Your task to perform on an android device: change your default location settings in chrome Image 0: 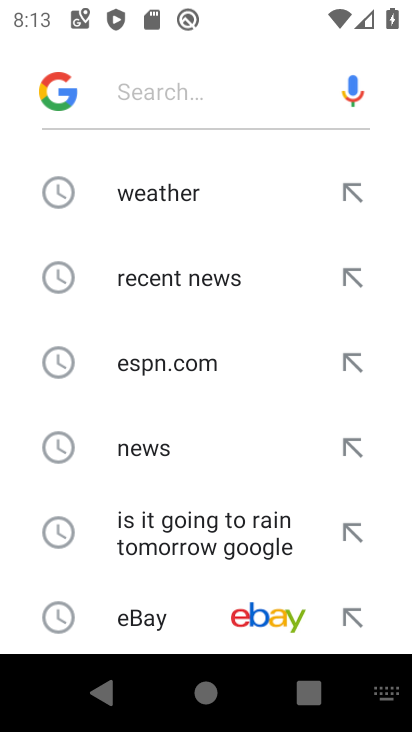
Step 0: press home button
Your task to perform on an android device: change your default location settings in chrome Image 1: 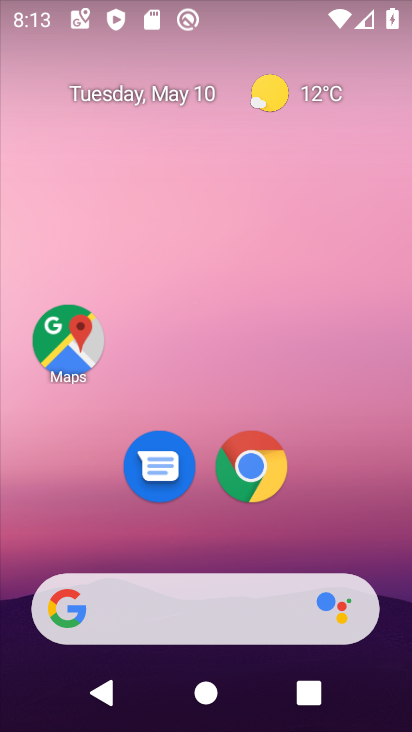
Step 1: click (257, 466)
Your task to perform on an android device: change your default location settings in chrome Image 2: 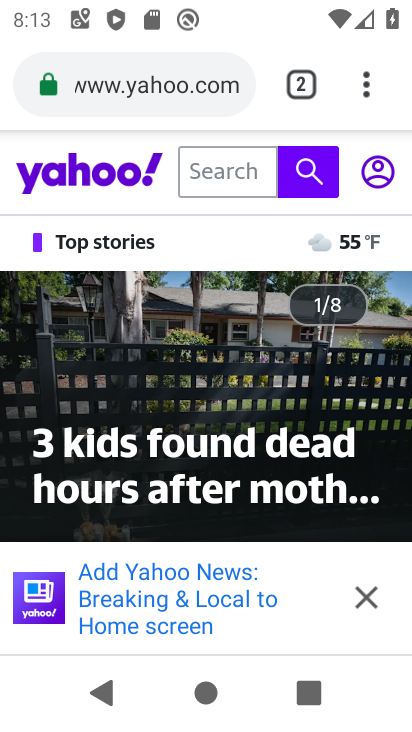
Step 2: click (361, 598)
Your task to perform on an android device: change your default location settings in chrome Image 3: 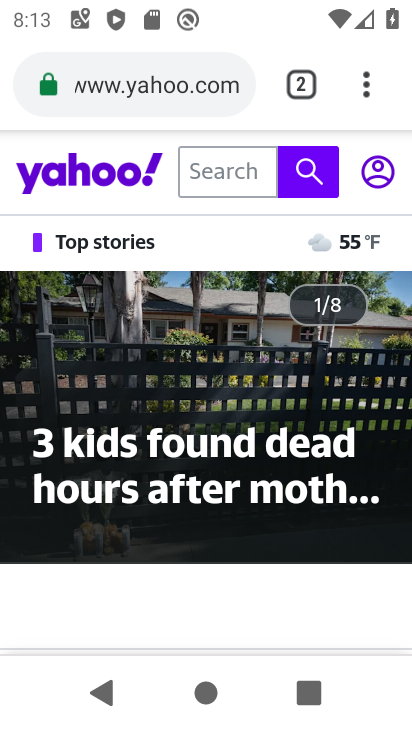
Step 3: click (369, 95)
Your task to perform on an android device: change your default location settings in chrome Image 4: 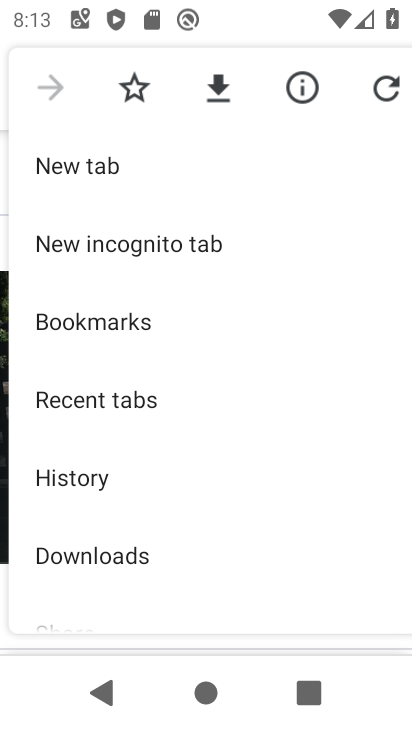
Step 4: drag from (153, 478) to (183, 197)
Your task to perform on an android device: change your default location settings in chrome Image 5: 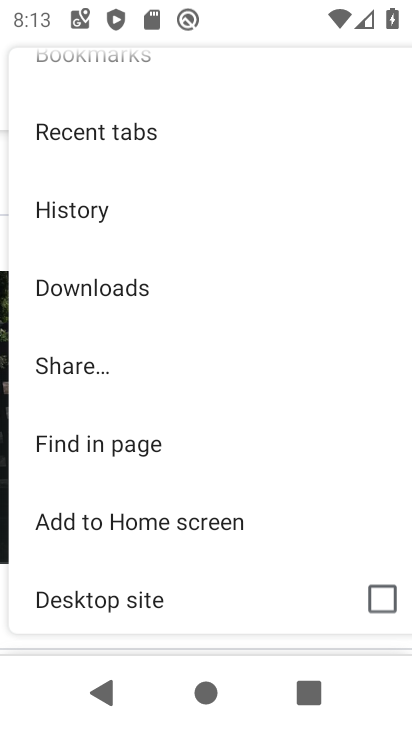
Step 5: drag from (109, 580) to (178, 233)
Your task to perform on an android device: change your default location settings in chrome Image 6: 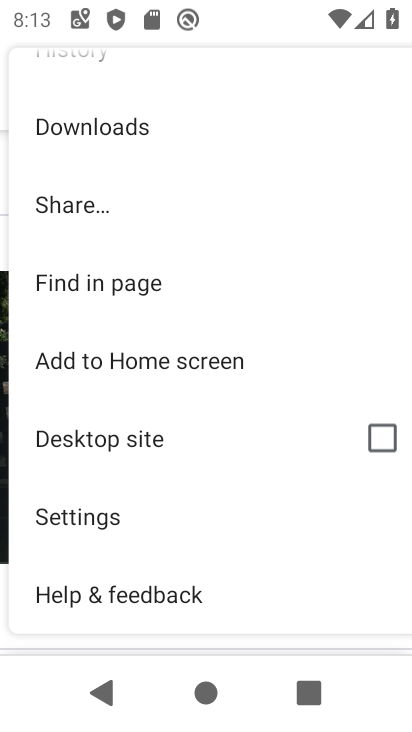
Step 6: click (114, 532)
Your task to perform on an android device: change your default location settings in chrome Image 7: 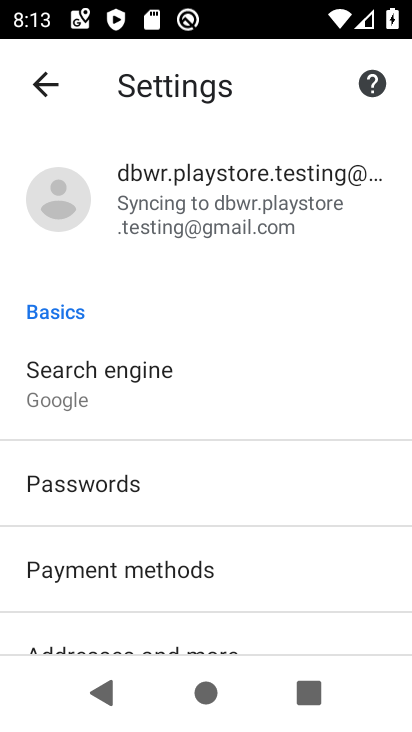
Step 7: drag from (97, 555) to (147, 409)
Your task to perform on an android device: change your default location settings in chrome Image 8: 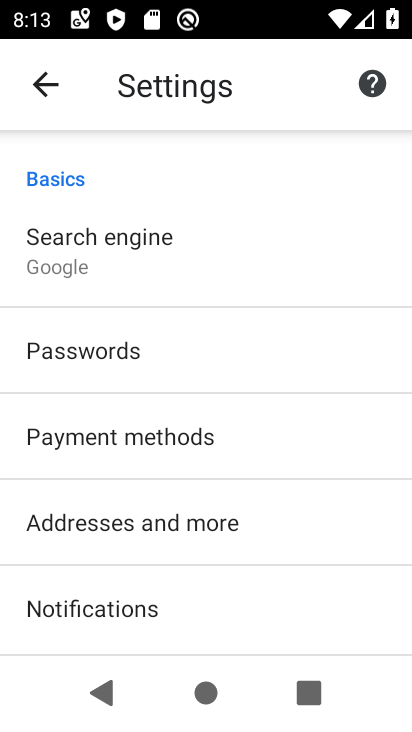
Step 8: drag from (121, 573) to (176, 387)
Your task to perform on an android device: change your default location settings in chrome Image 9: 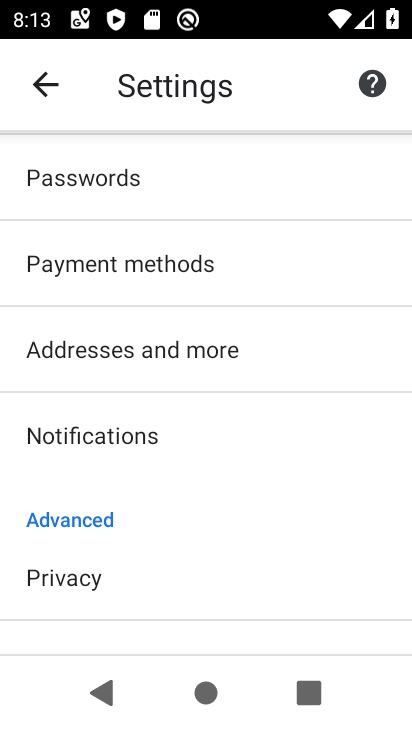
Step 9: drag from (127, 548) to (198, 290)
Your task to perform on an android device: change your default location settings in chrome Image 10: 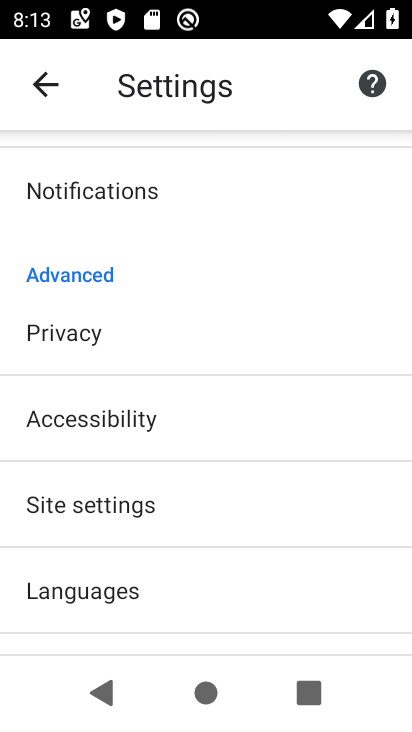
Step 10: click (116, 522)
Your task to perform on an android device: change your default location settings in chrome Image 11: 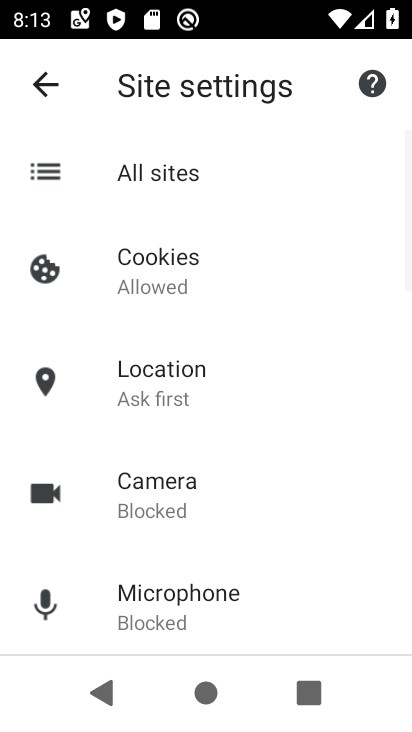
Step 11: click (168, 374)
Your task to perform on an android device: change your default location settings in chrome Image 12: 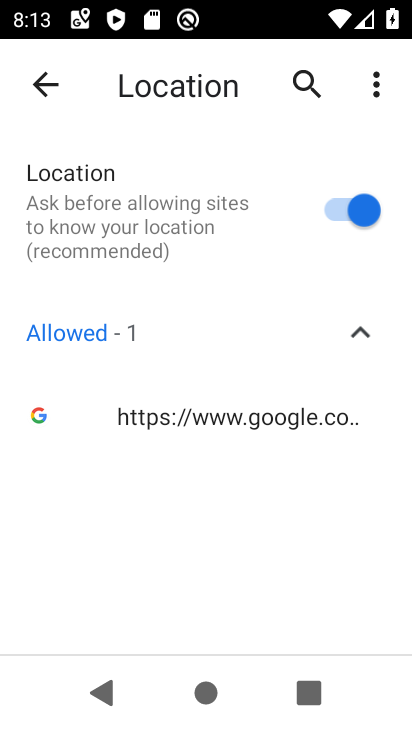
Step 12: click (335, 215)
Your task to perform on an android device: change your default location settings in chrome Image 13: 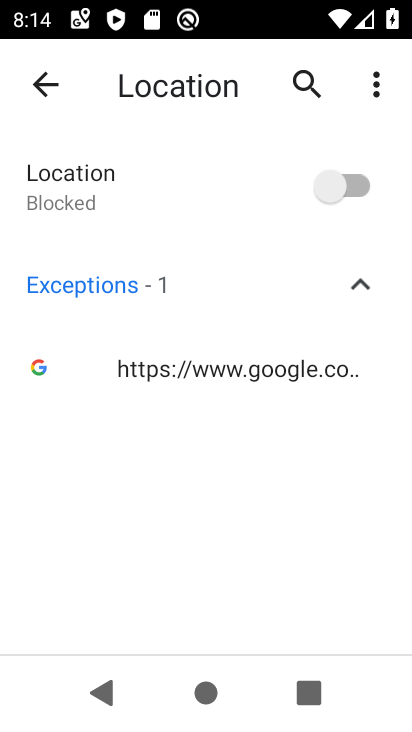
Step 13: task complete